Your task to perform on an android device: Open ESPN.com Image 0: 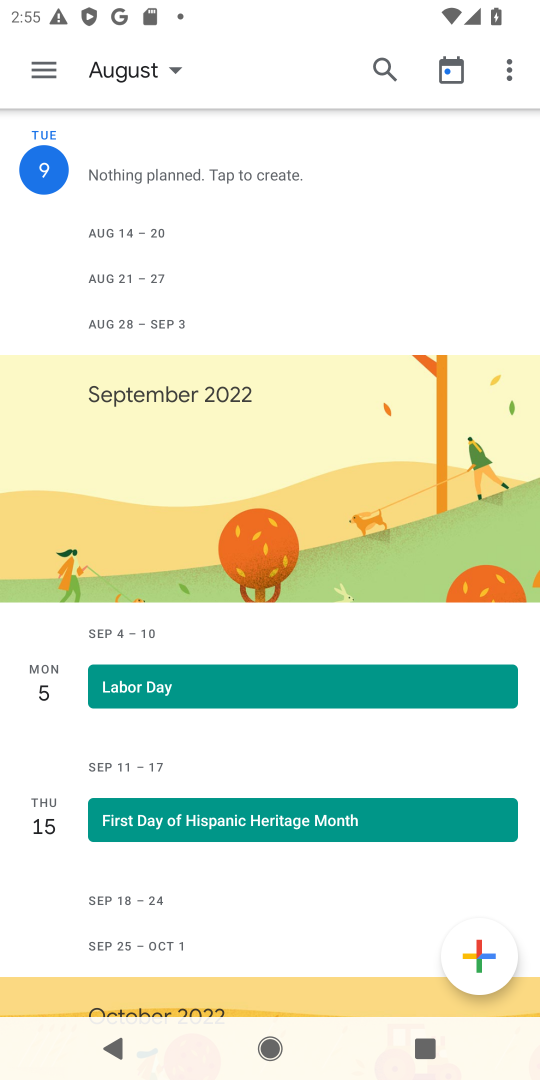
Step 0: press home button
Your task to perform on an android device: Open ESPN.com Image 1: 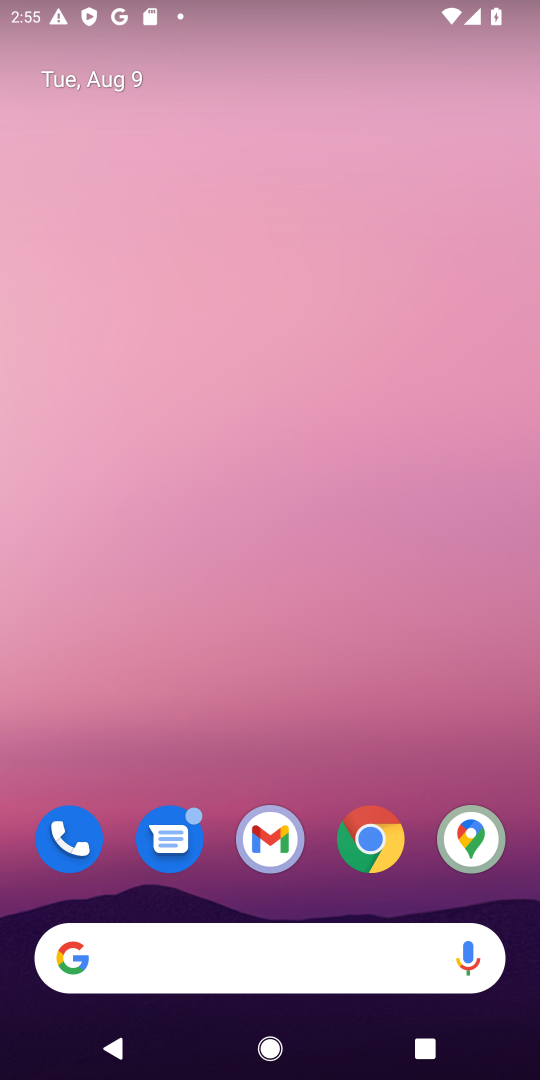
Step 1: click (64, 952)
Your task to perform on an android device: Open ESPN.com Image 2: 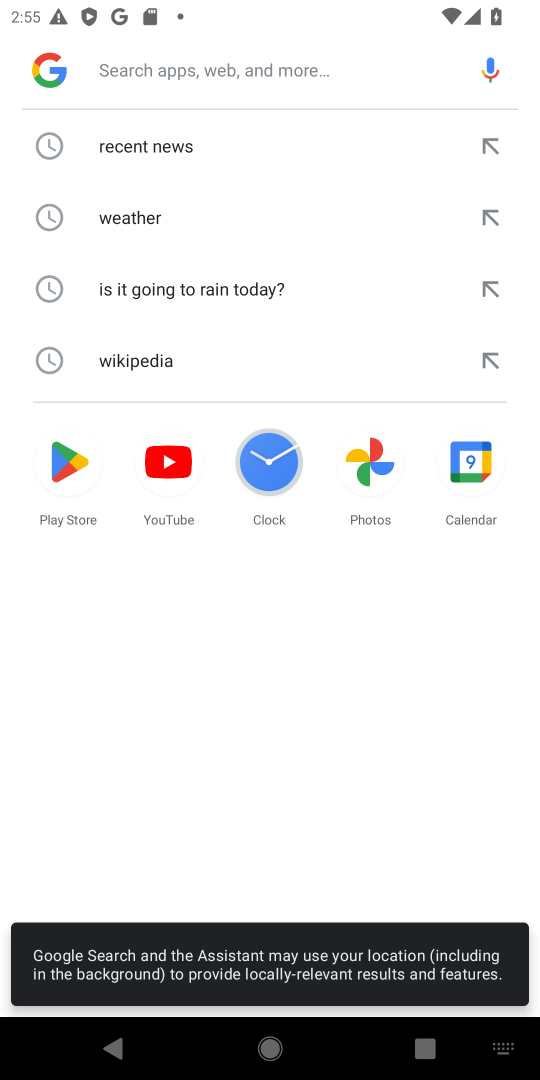
Step 2: type "ESPN.com"
Your task to perform on an android device: Open ESPN.com Image 3: 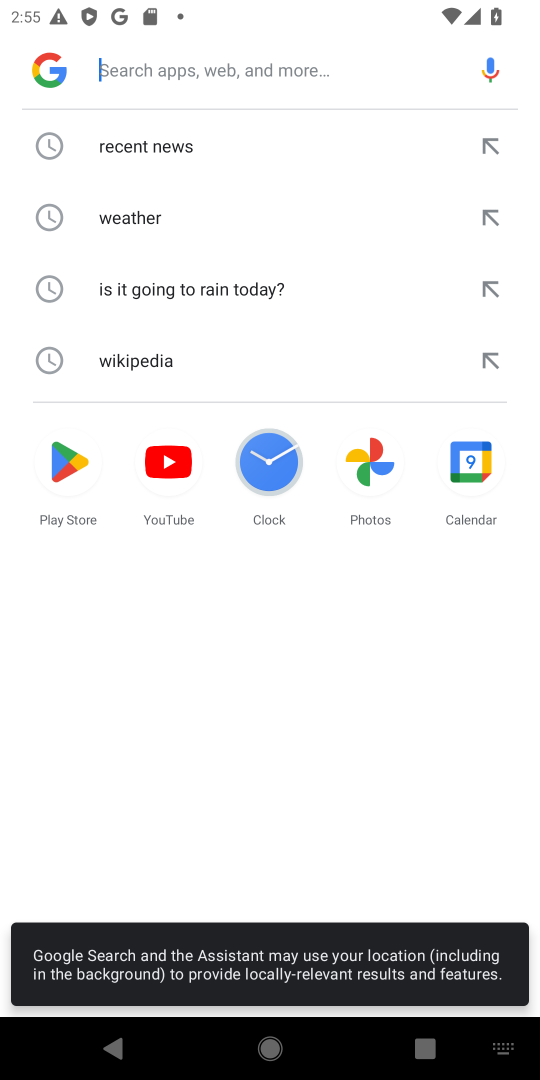
Step 3: click (195, 73)
Your task to perform on an android device: Open ESPN.com Image 4: 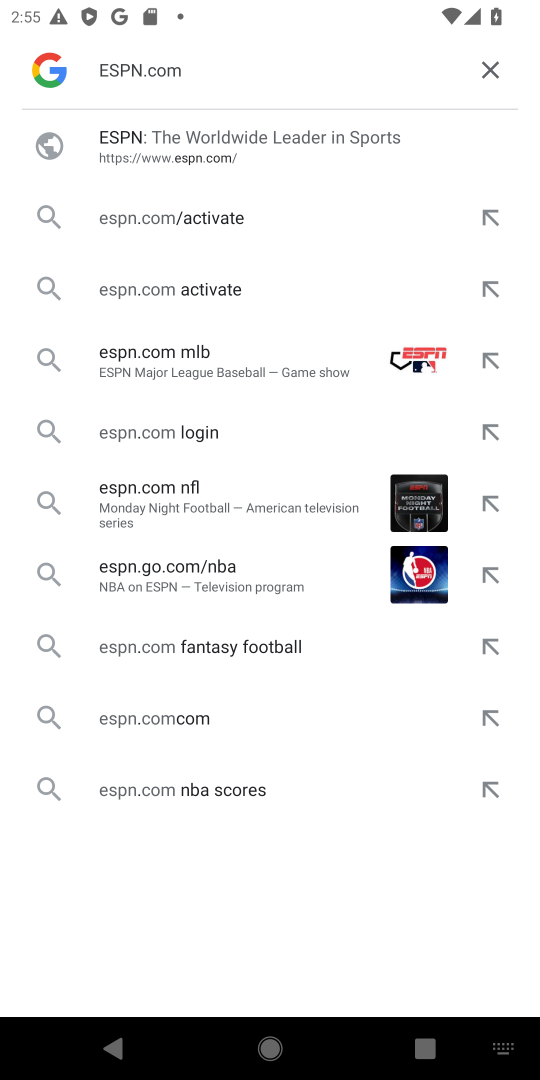
Step 4: press enter
Your task to perform on an android device: Open ESPN.com Image 5: 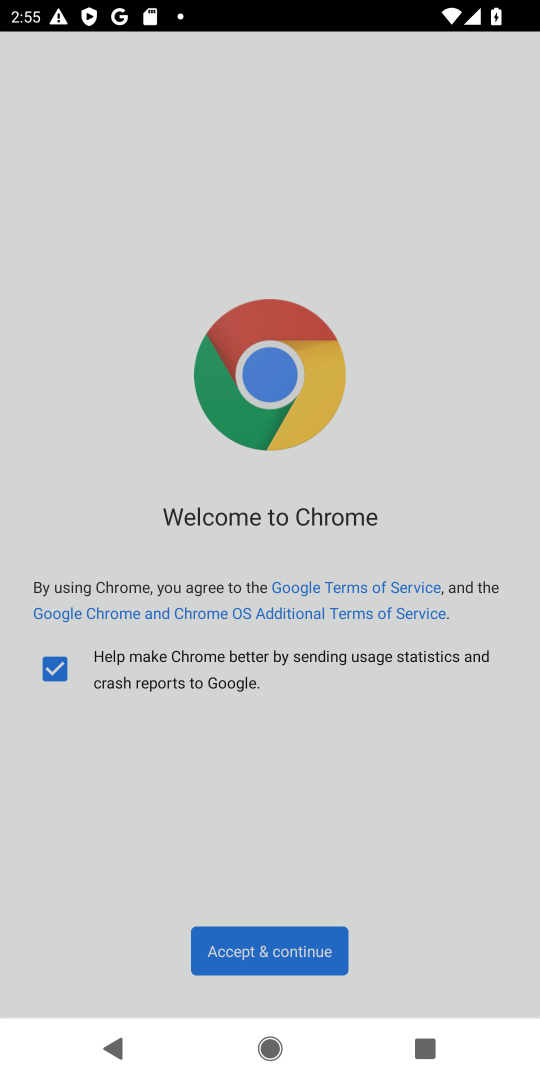
Step 5: click (284, 956)
Your task to perform on an android device: Open ESPN.com Image 6: 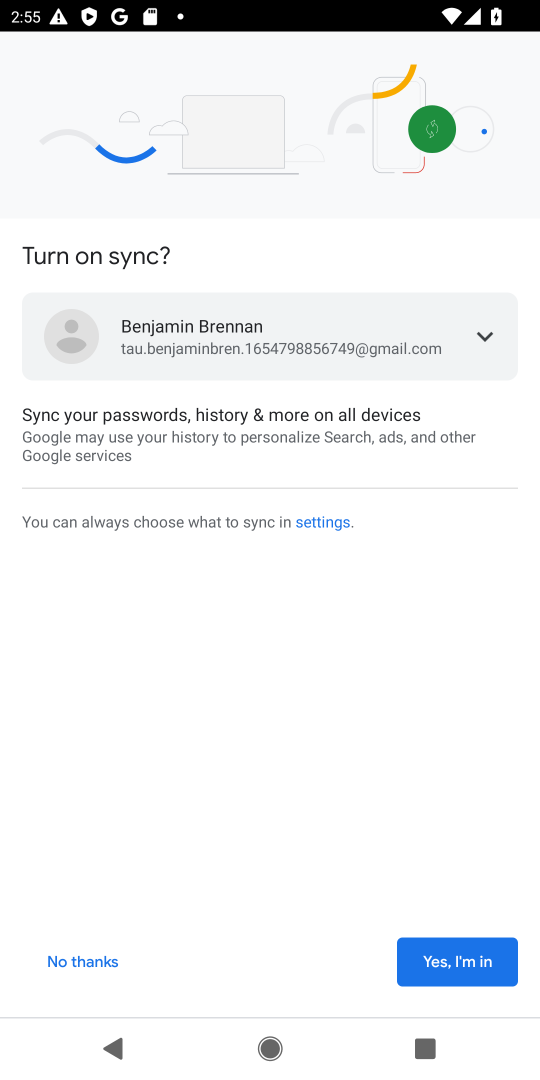
Step 6: click (461, 966)
Your task to perform on an android device: Open ESPN.com Image 7: 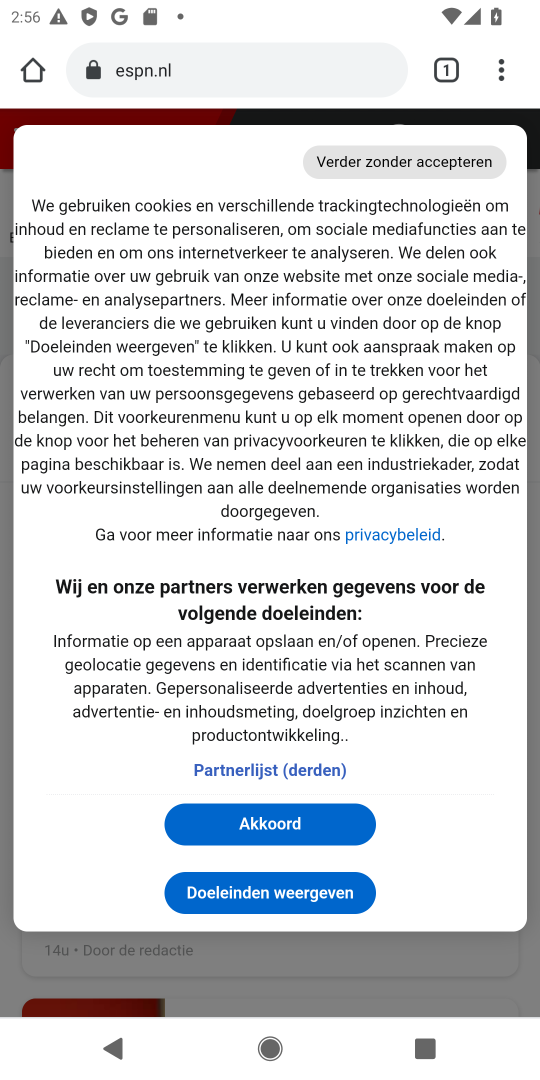
Step 7: click (304, 813)
Your task to perform on an android device: Open ESPN.com Image 8: 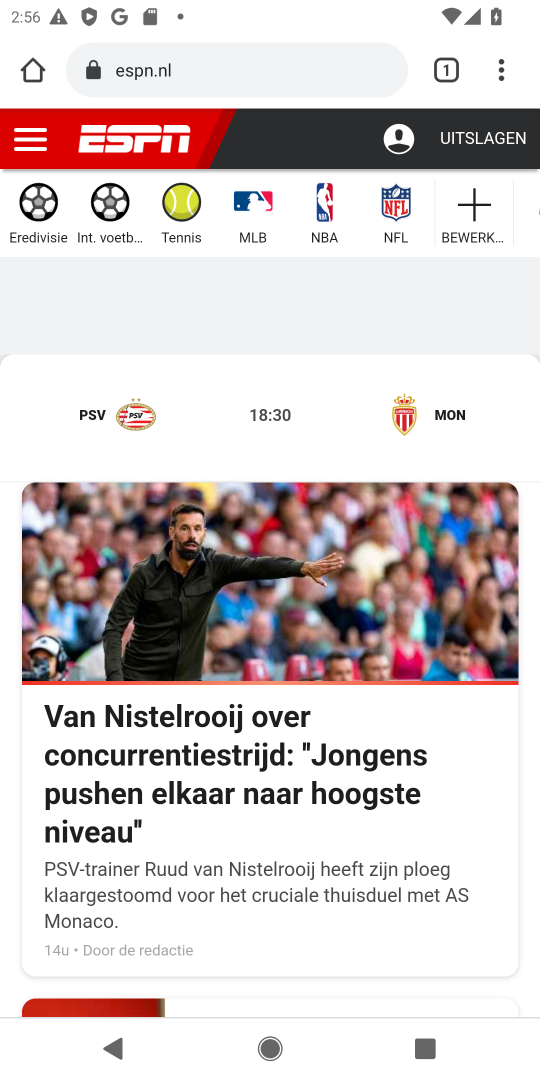
Step 8: task complete